Your task to perform on an android device: Go to network settings Image 0: 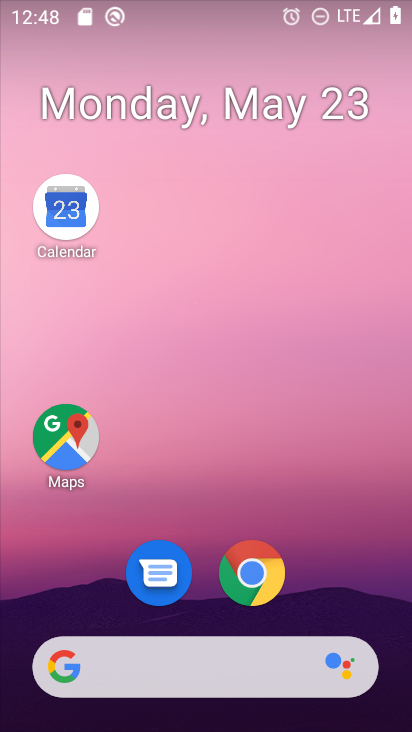
Step 0: drag from (342, 614) to (376, 67)
Your task to perform on an android device: Go to network settings Image 1: 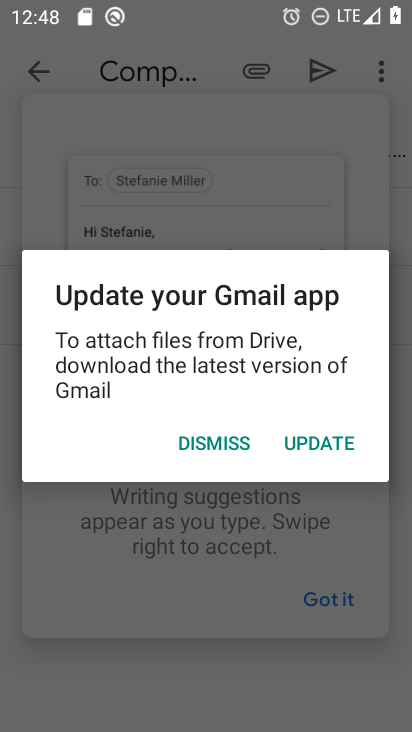
Step 1: press home button
Your task to perform on an android device: Go to network settings Image 2: 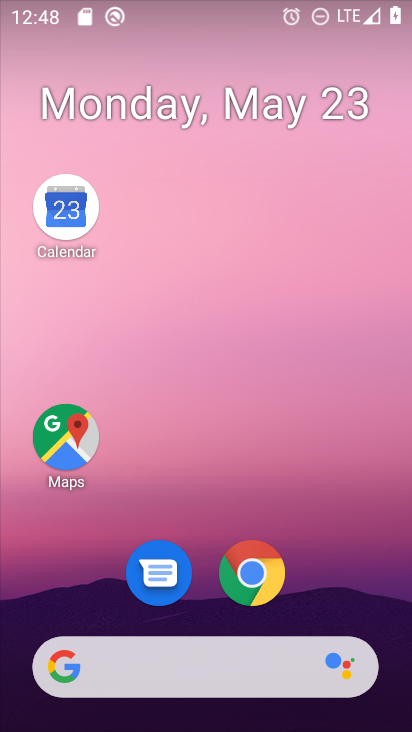
Step 2: drag from (316, 606) to (325, 0)
Your task to perform on an android device: Go to network settings Image 3: 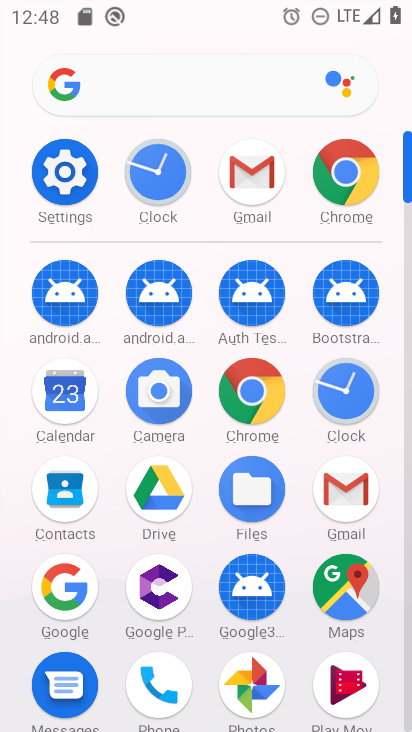
Step 3: click (64, 174)
Your task to perform on an android device: Go to network settings Image 4: 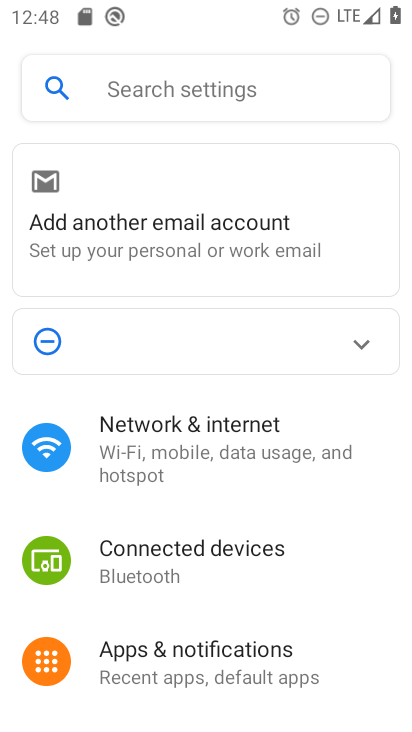
Step 4: click (208, 461)
Your task to perform on an android device: Go to network settings Image 5: 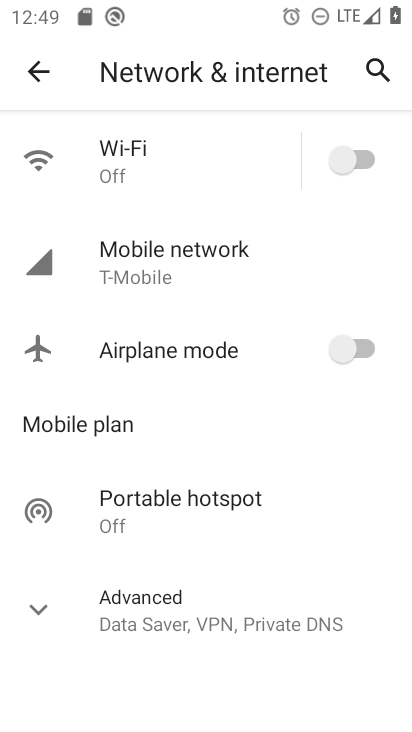
Step 5: click (162, 287)
Your task to perform on an android device: Go to network settings Image 6: 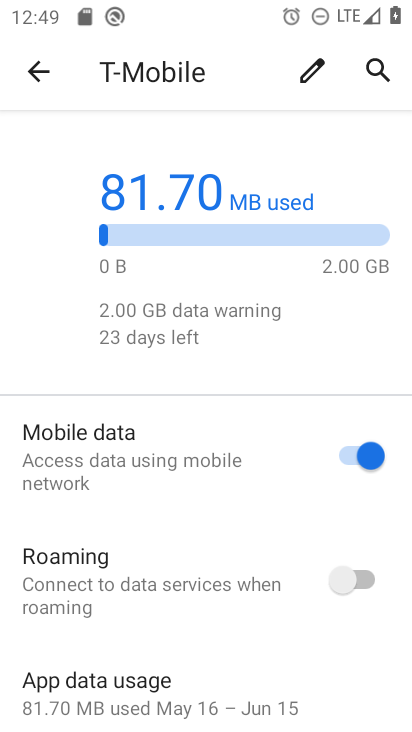
Step 6: task complete